Your task to perform on an android device: toggle airplane mode Image 0: 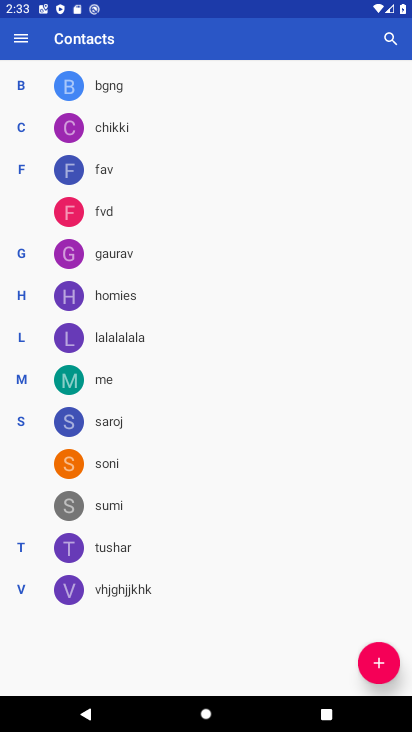
Step 0: press back button
Your task to perform on an android device: toggle airplane mode Image 1: 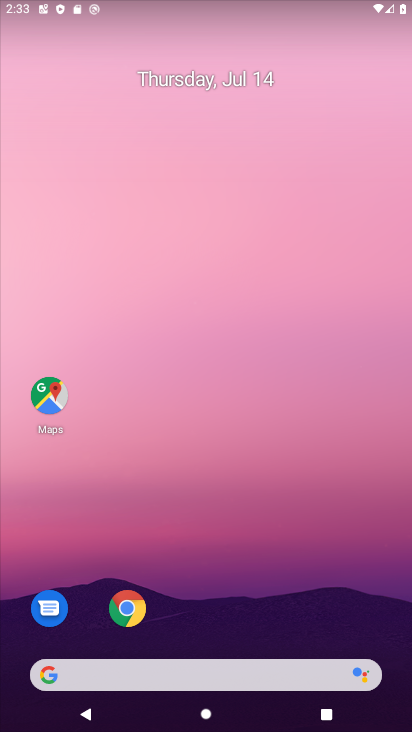
Step 1: drag from (302, 5) to (217, 611)
Your task to perform on an android device: toggle airplane mode Image 2: 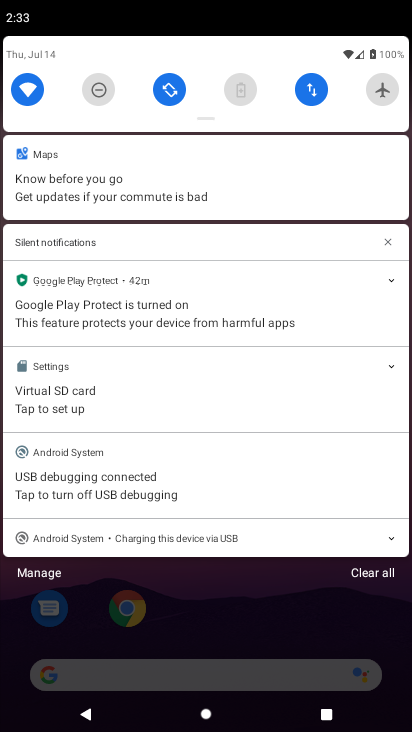
Step 2: click (380, 97)
Your task to perform on an android device: toggle airplane mode Image 3: 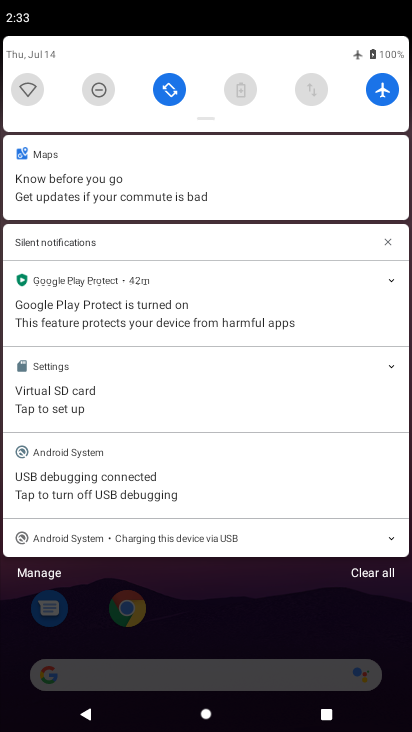
Step 3: task complete